Your task to perform on an android device: open chrome privacy settings Image 0: 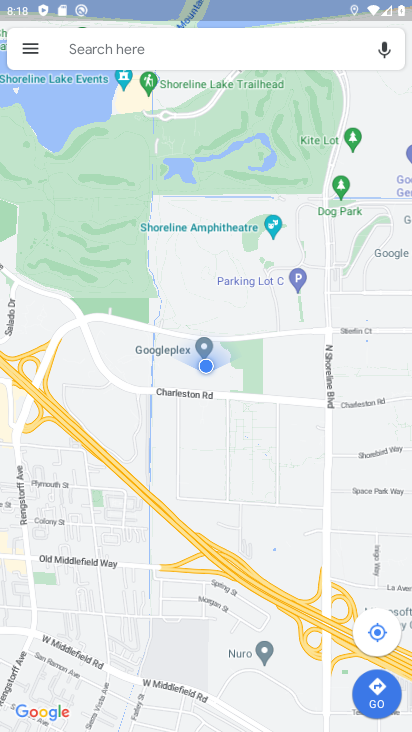
Step 0: press home button
Your task to perform on an android device: open chrome privacy settings Image 1: 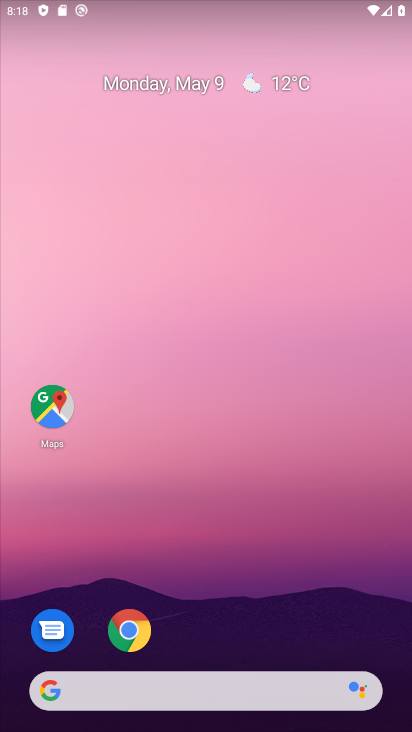
Step 1: drag from (236, 629) to (311, 4)
Your task to perform on an android device: open chrome privacy settings Image 2: 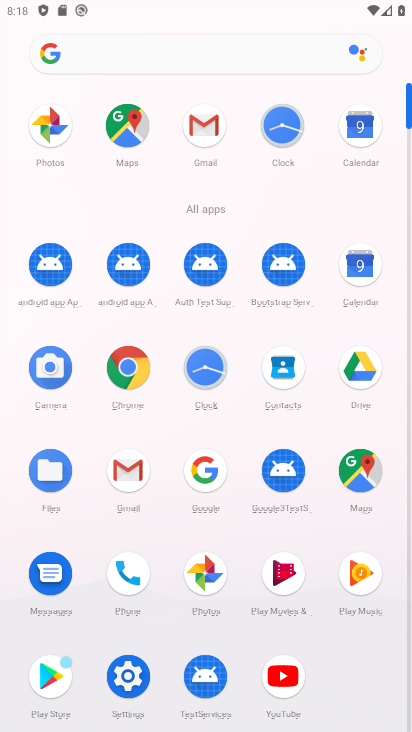
Step 2: click (136, 384)
Your task to perform on an android device: open chrome privacy settings Image 3: 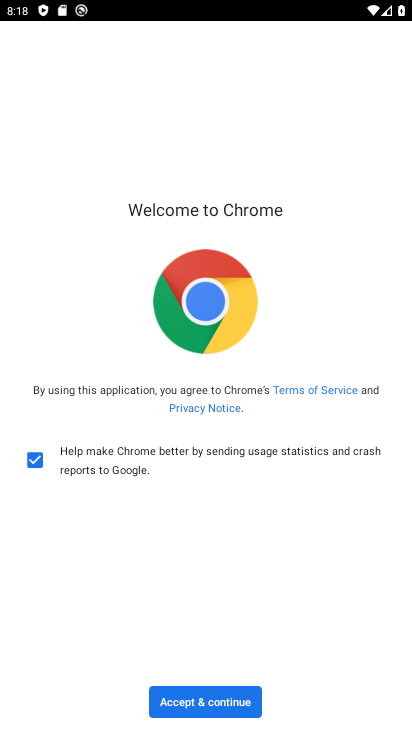
Step 3: click (212, 708)
Your task to perform on an android device: open chrome privacy settings Image 4: 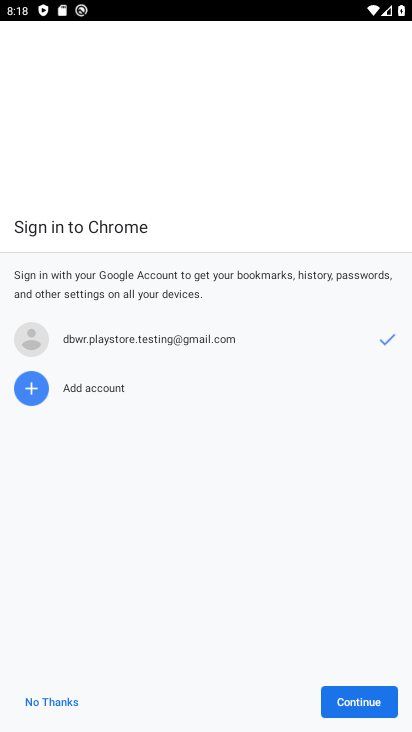
Step 4: click (355, 686)
Your task to perform on an android device: open chrome privacy settings Image 5: 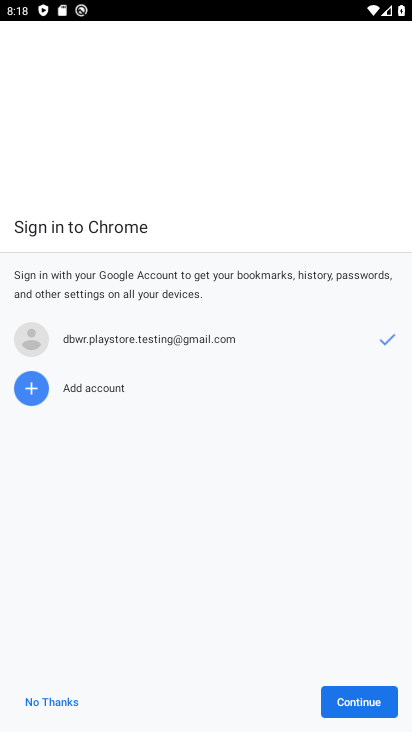
Step 5: click (386, 696)
Your task to perform on an android device: open chrome privacy settings Image 6: 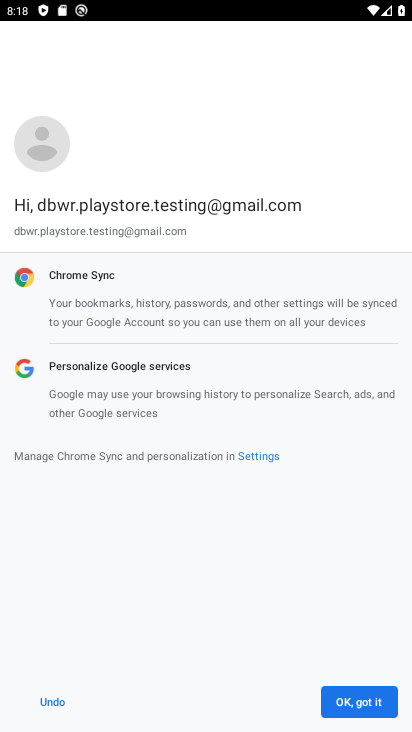
Step 6: click (356, 695)
Your task to perform on an android device: open chrome privacy settings Image 7: 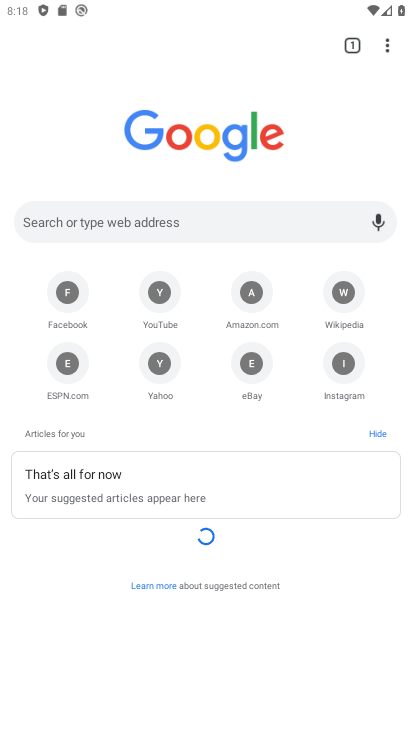
Step 7: click (392, 50)
Your task to perform on an android device: open chrome privacy settings Image 8: 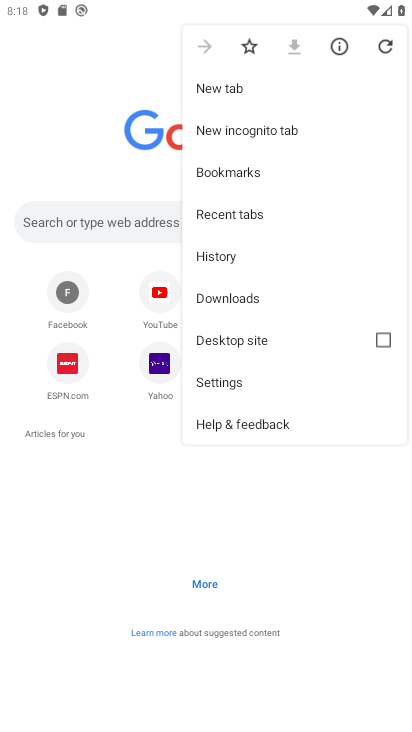
Step 8: click (231, 387)
Your task to perform on an android device: open chrome privacy settings Image 9: 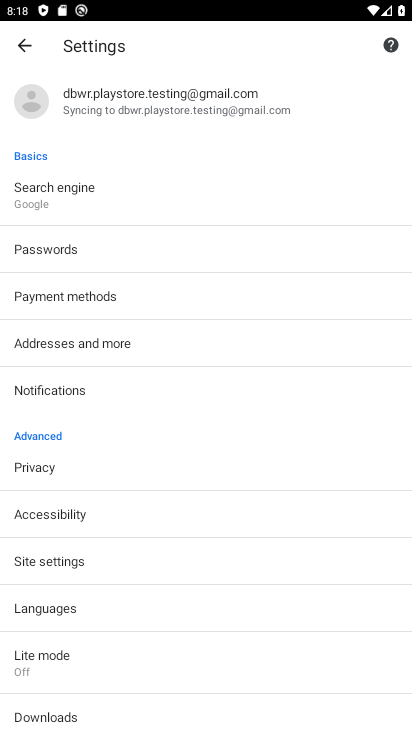
Step 9: click (72, 466)
Your task to perform on an android device: open chrome privacy settings Image 10: 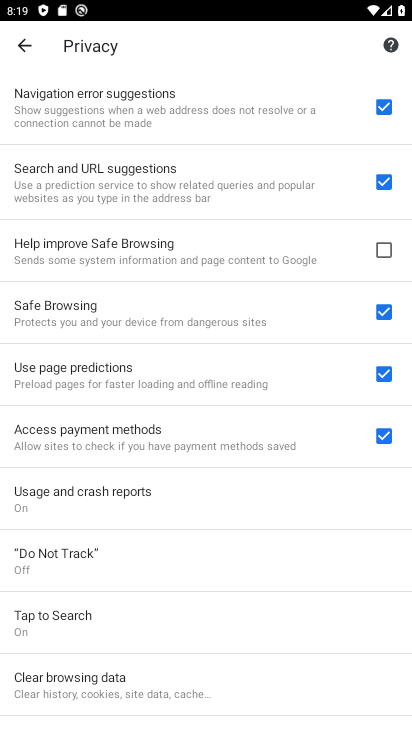
Step 10: task complete